Your task to perform on an android device: Open accessibility settings Image 0: 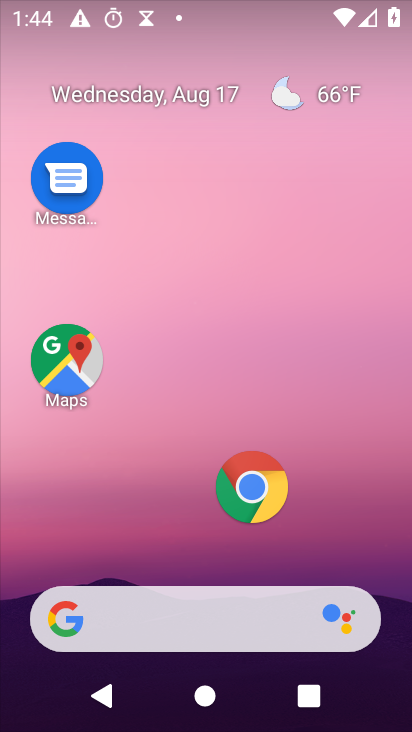
Step 0: drag from (204, 425) to (213, 92)
Your task to perform on an android device: Open accessibility settings Image 1: 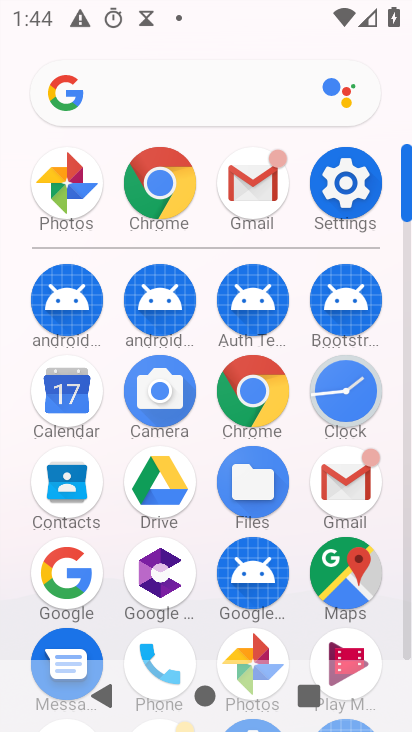
Step 1: click (360, 198)
Your task to perform on an android device: Open accessibility settings Image 2: 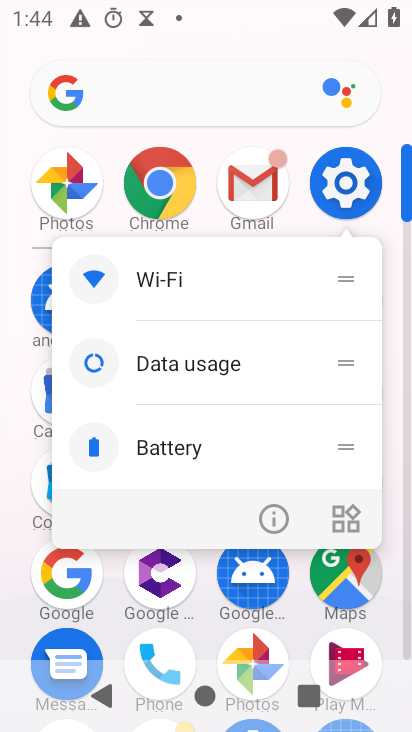
Step 2: click (360, 193)
Your task to perform on an android device: Open accessibility settings Image 3: 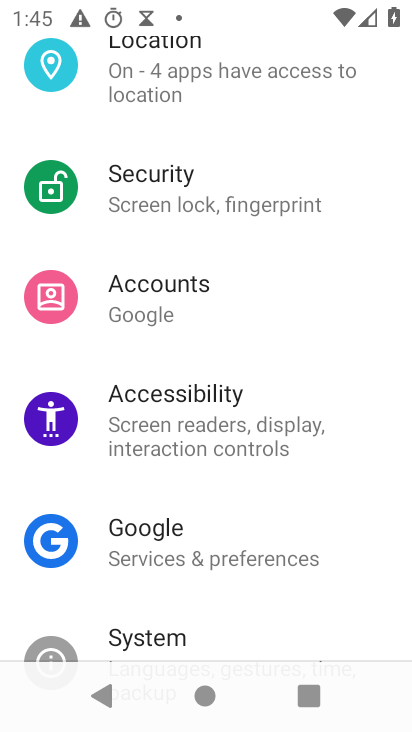
Step 3: click (200, 411)
Your task to perform on an android device: Open accessibility settings Image 4: 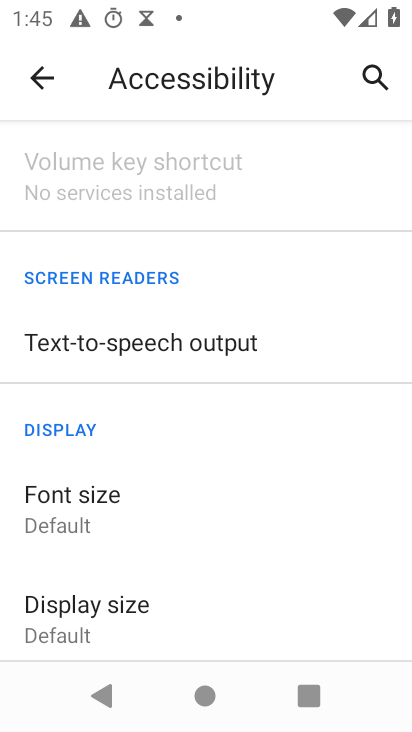
Step 4: task complete